Your task to perform on an android device: change notification settings in the gmail app Image 0: 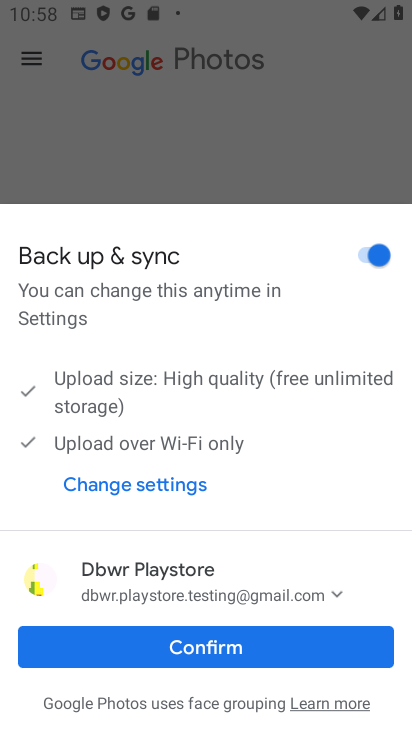
Step 0: press home button
Your task to perform on an android device: change notification settings in the gmail app Image 1: 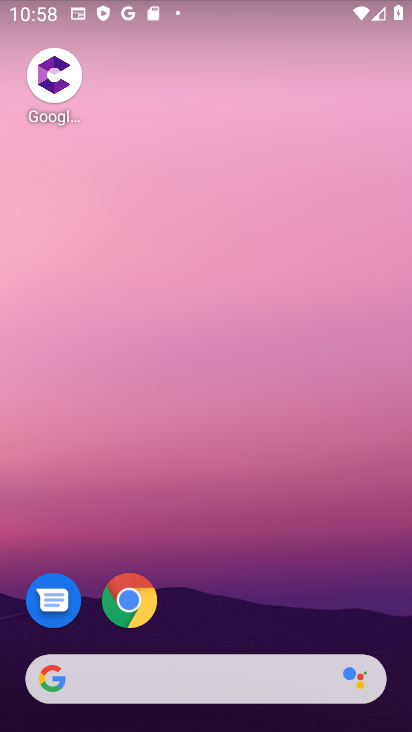
Step 1: drag from (284, 527) to (176, 17)
Your task to perform on an android device: change notification settings in the gmail app Image 2: 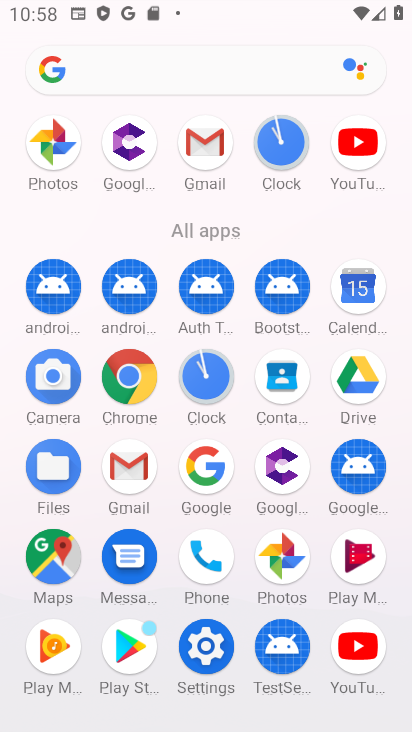
Step 2: click (122, 462)
Your task to perform on an android device: change notification settings in the gmail app Image 3: 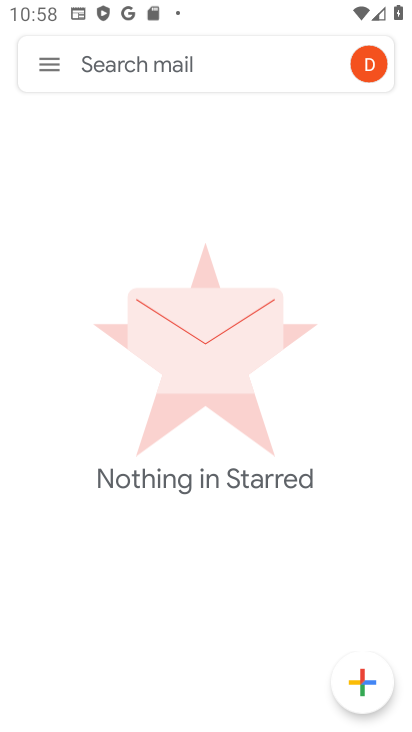
Step 3: click (50, 67)
Your task to perform on an android device: change notification settings in the gmail app Image 4: 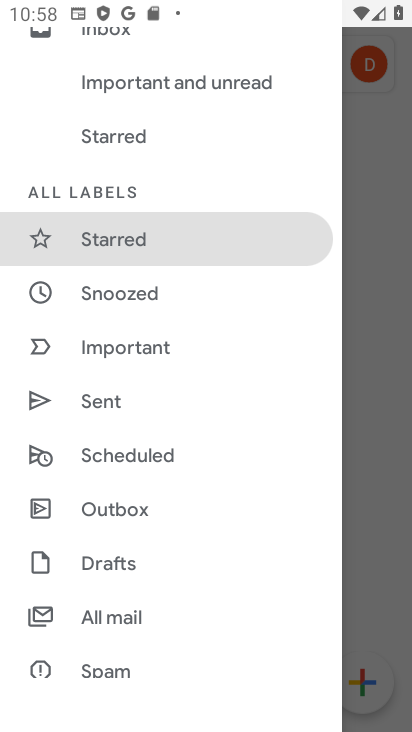
Step 4: drag from (215, 485) to (213, 246)
Your task to perform on an android device: change notification settings in the gmail app Image 5: 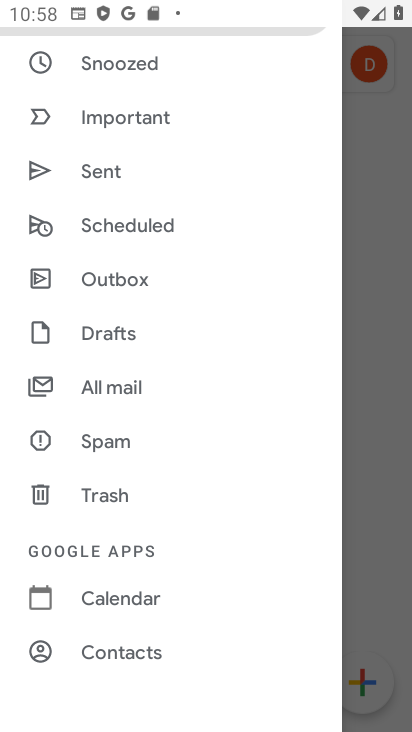
Step 5: drag from (208, 557) to (111, 20)
Your task to perform on an android device: change notification settings in the gmail app Image 6: 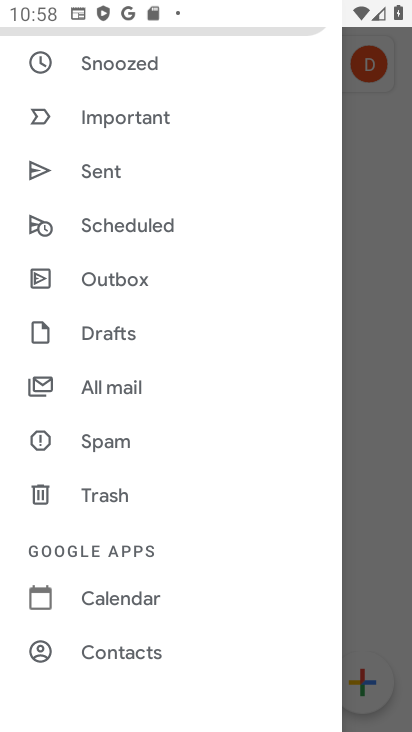
Step 6: drag from (175, 597) to (243, 37)
Your task to perform on an android device: change notification settings in the gmail app Image 7: 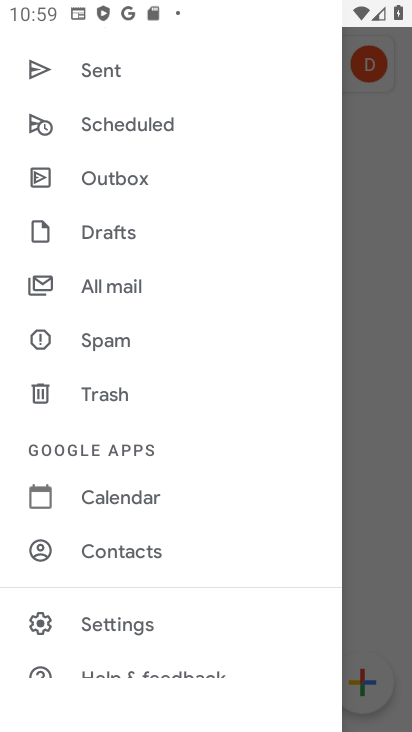
Step 7: click (110, 619)
Your task to perform on an android device: change notification settings in the gmail app Image 8: 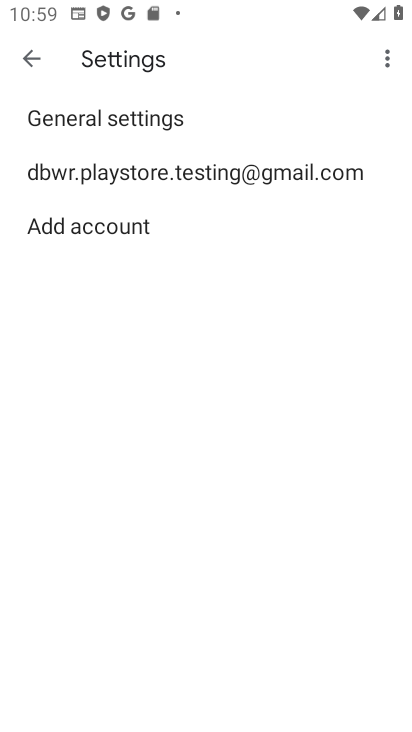
Step 8: click (132, 118)
Your task to perform on an android device: change notification settings in the gmail app Image 9: 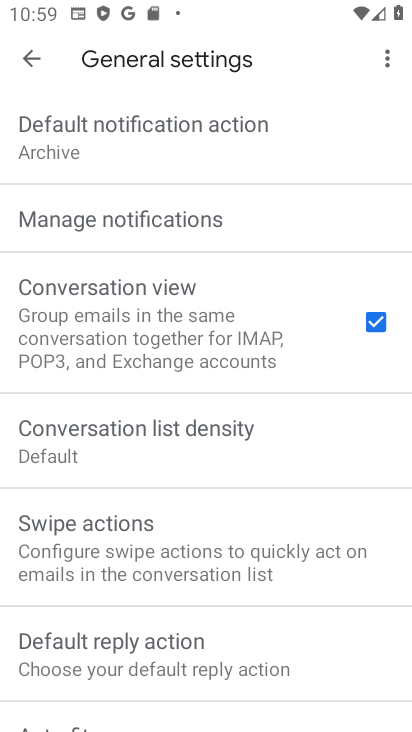
Step 9: click (154, 223)
Your task to perform on an android device: change notification settings in the gmail app Image 10: 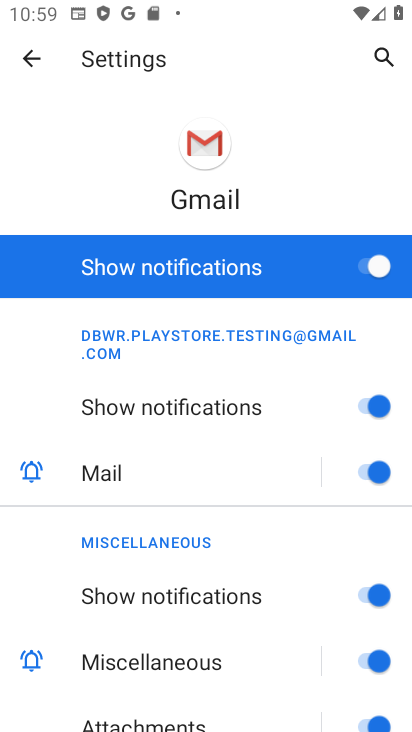
Step 10: click (386, 264)
Your task to perform on an android device: change notification settings in the gmail app Image 11: 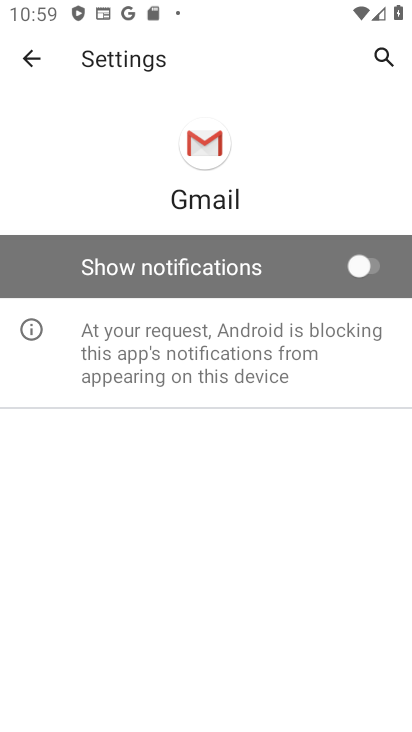
Step 11: task complete